Your task to perform on an android device: Go to accessibility settings Image 0: 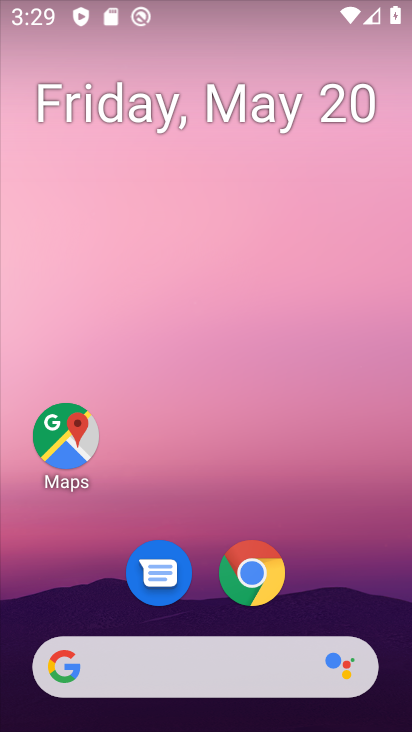
Step 0: drag from (389, 628) to (347, 80)
Your task to perform on an android device: Go to accessibility settings Image 1: 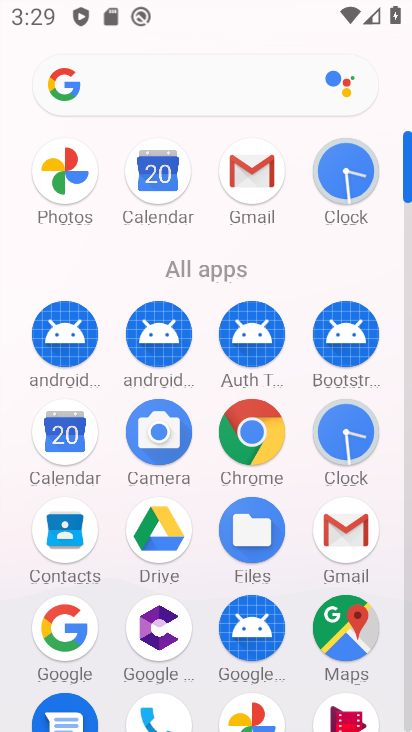
Step 1: click (403, 698)
Your task to perform on an android device: Go to accessibility settings Image 2: 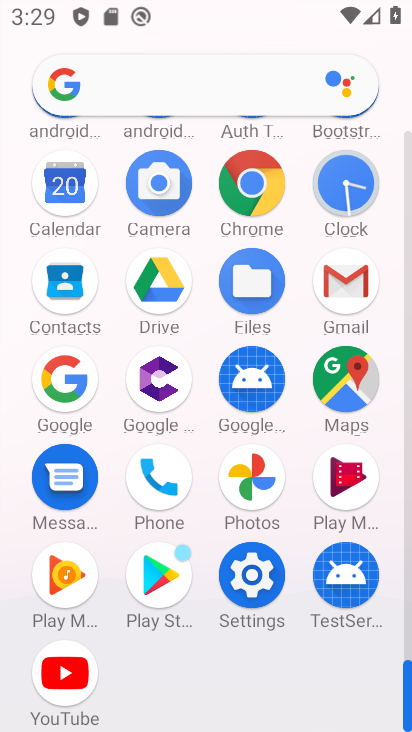
Step 2: click (255, 576)
Your task to perform on an android device: Go to accessibility settings Image 3: 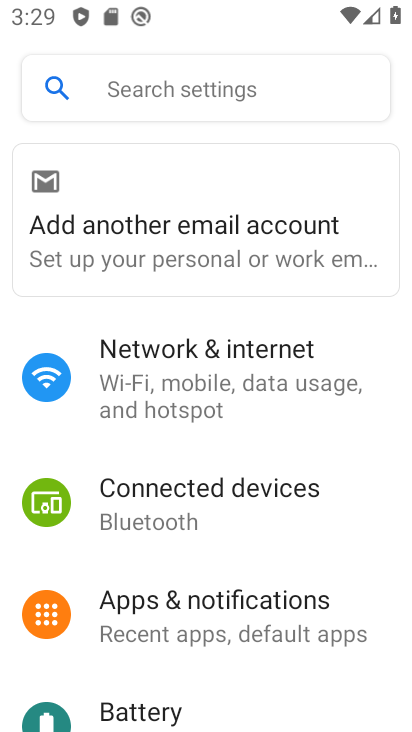
Step 3: drag from (317, 653) to (315, 218)
Your task to perform on an android device: Go to accessibility settings Image 4: 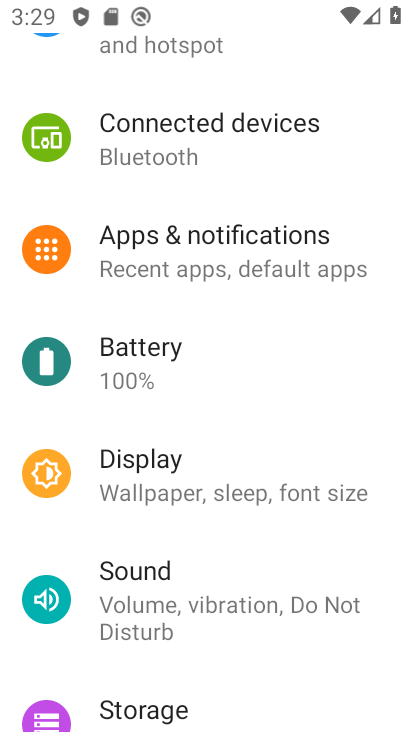
Step 4: drag from (352, 610) to (341, 151)
Your task to perform on an android device: Go to accessibility settings Image 5: 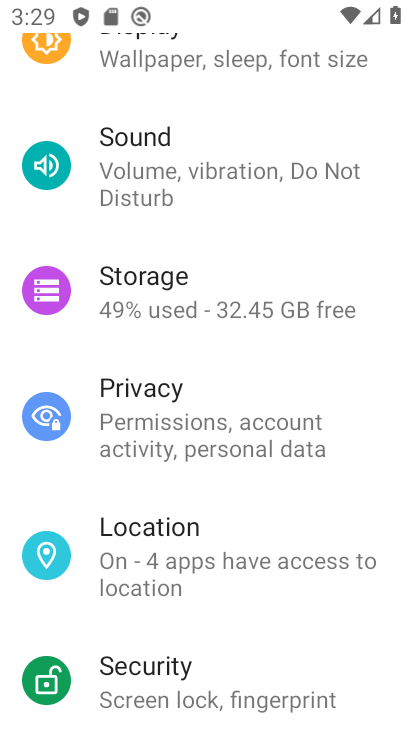
Step 5: drag from (360, 626) to (351, 231)
Your task to perform on an android device: Go to accessibility settings Image 6: 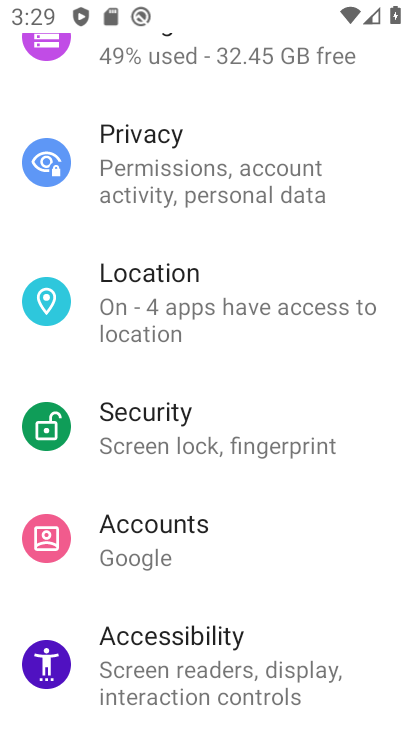
Step 6: click (163, 657)
Your task to perform on an android device: Go to accessibility settings Image 7: 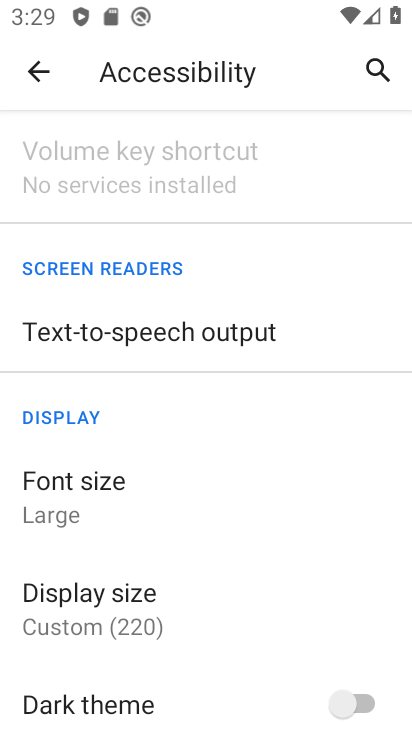
Step 7: task complete